Your task to perform on an android device: turn on sleep mode Image 0: 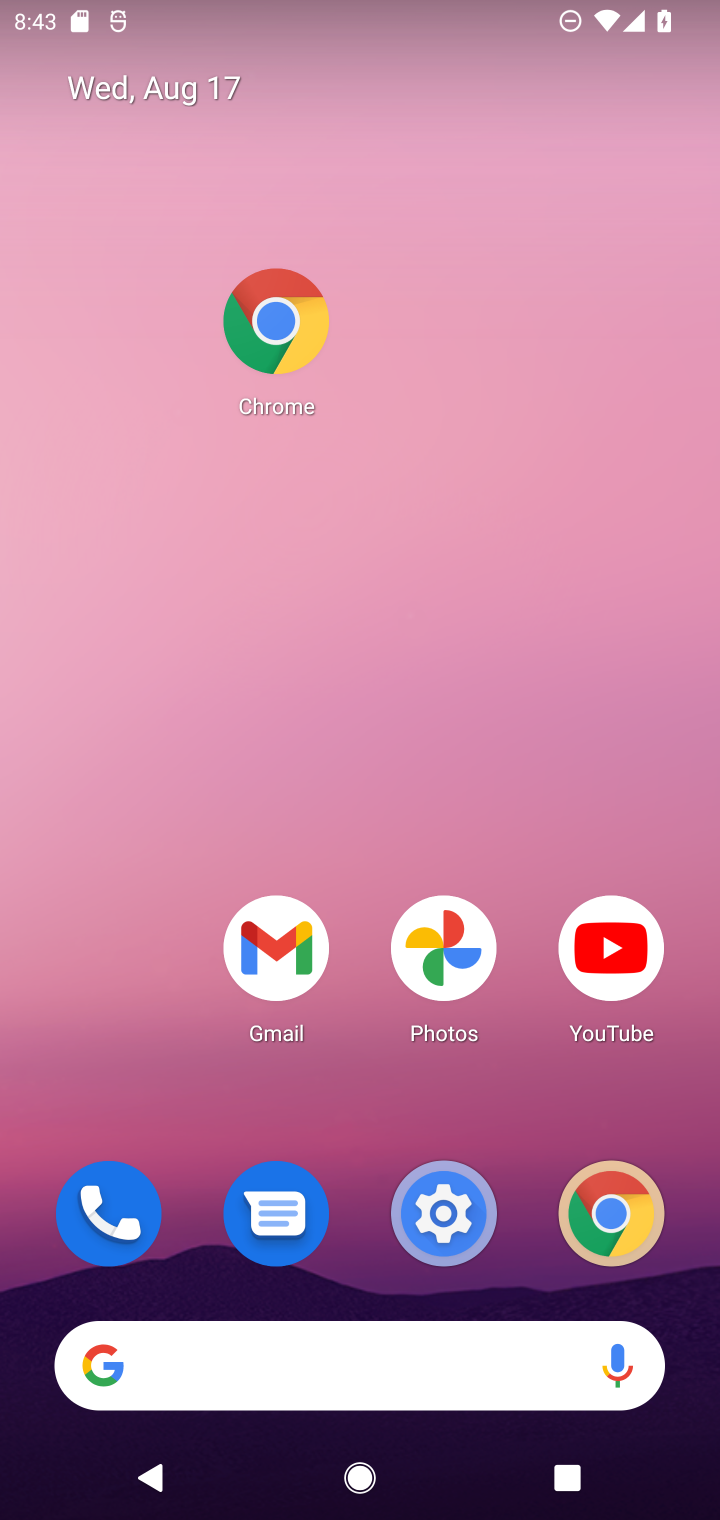
Step 0: click (461, 1279)
Your task to perform on an android device: turn on sleep mode Image 1: 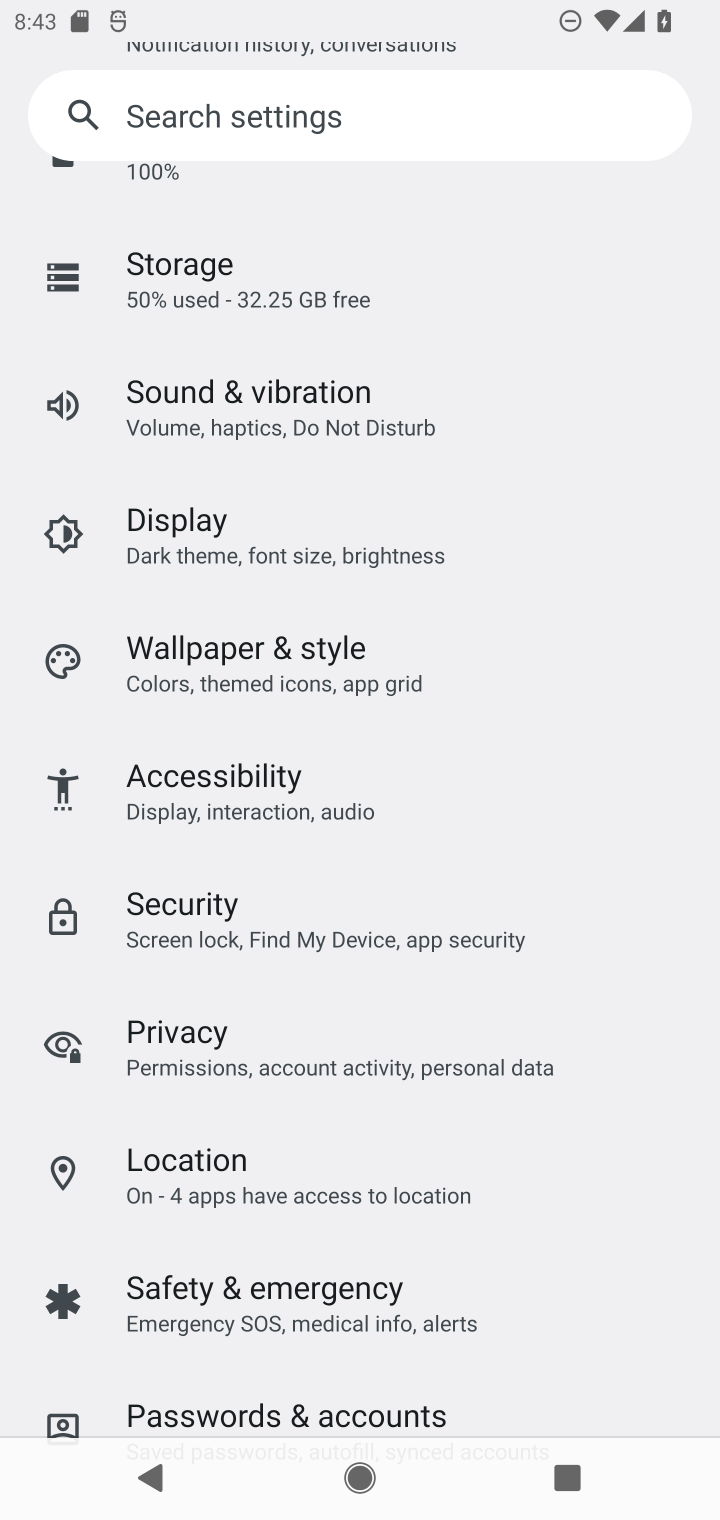
Step 1: click (444, 1257)
Your task to perform on an android device: turn on sleep mode Image 2: 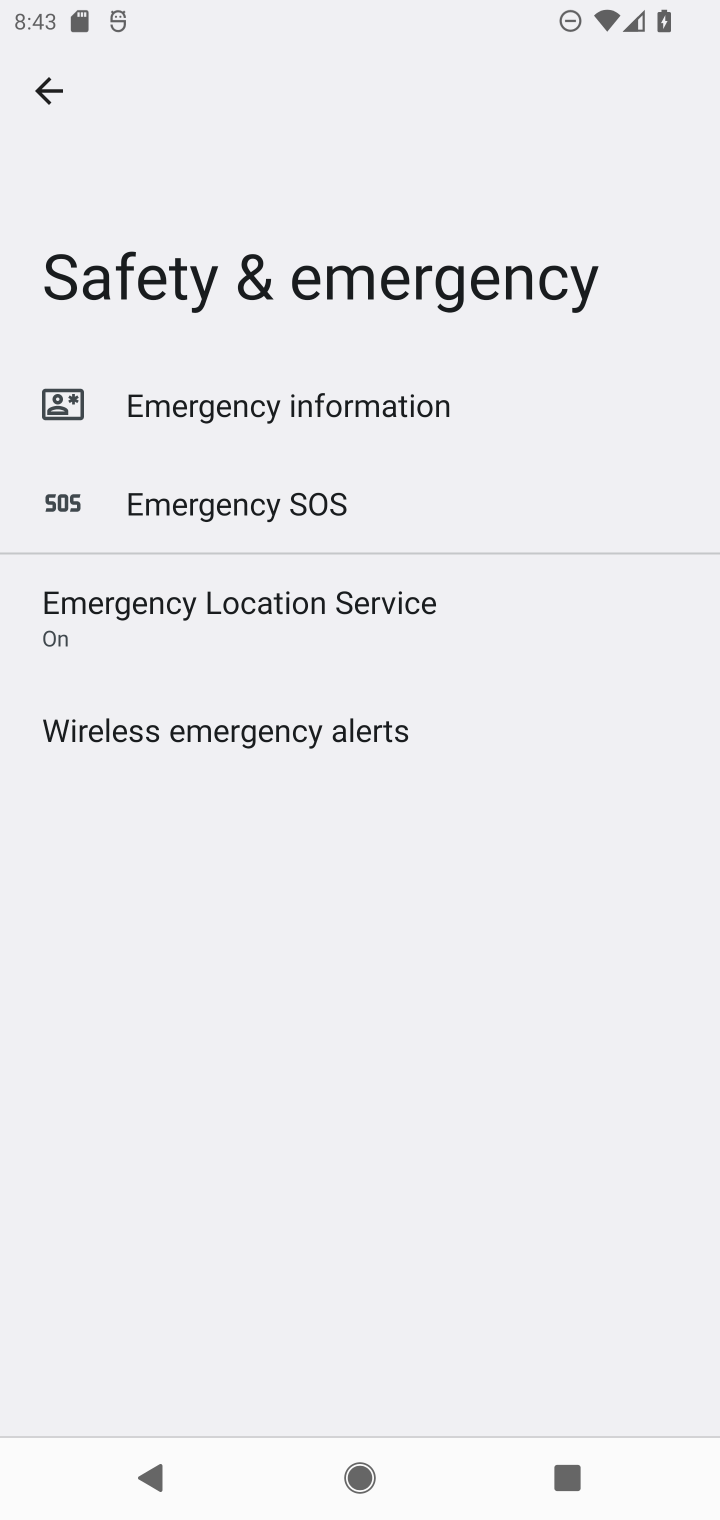
Step 2: click (303, 552)
Your task to perform on an android device: turn on sleep mode Image 3: 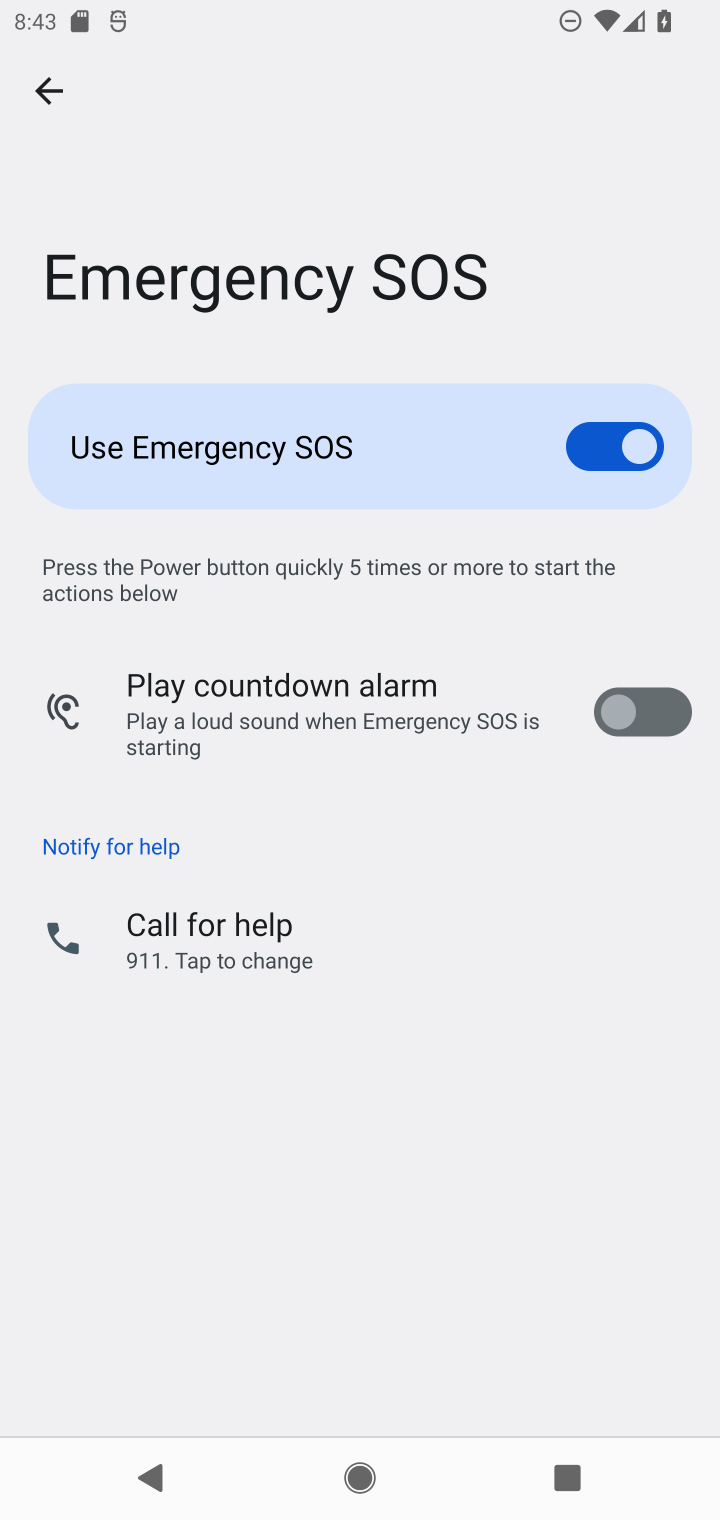
Step 3: click (37, 91)
Your task to perform on an android device: turn on sleep mode Image 4: 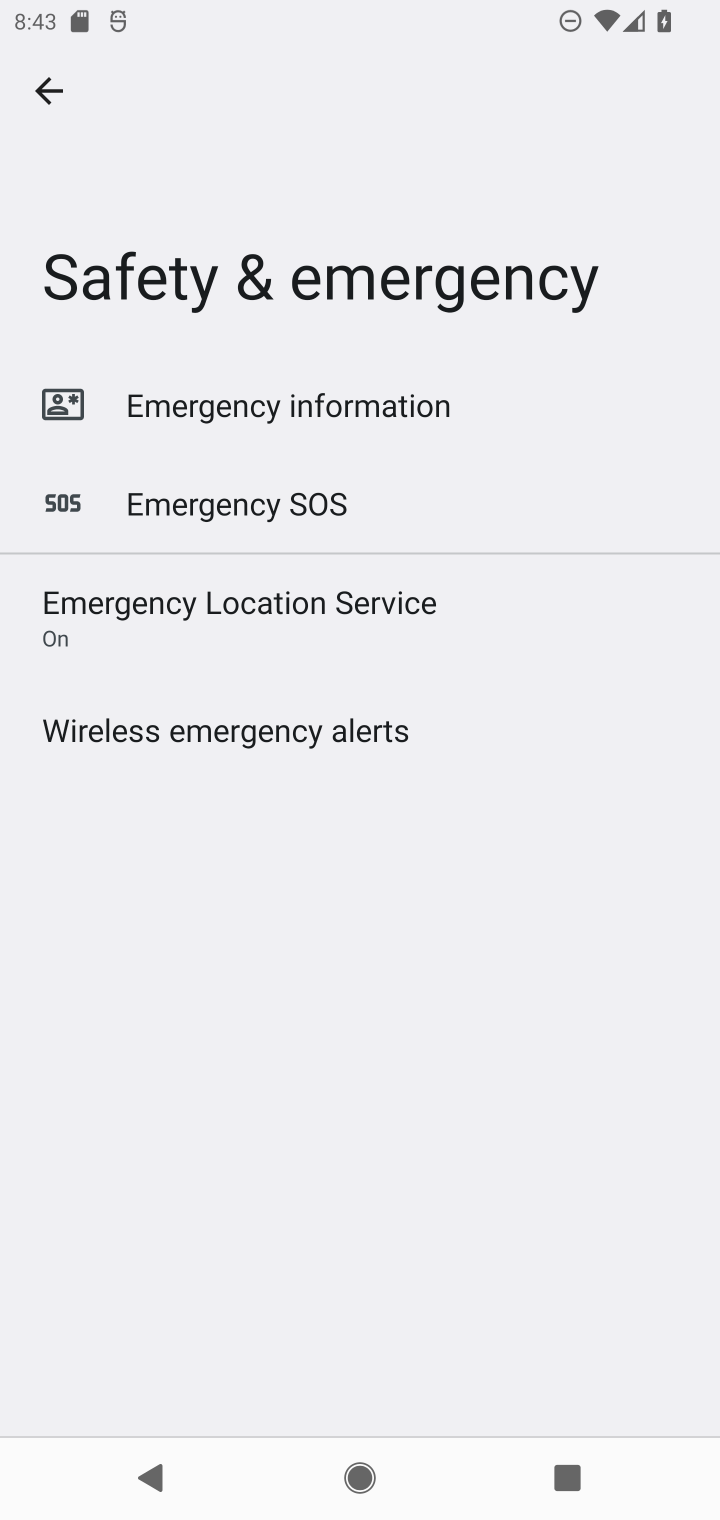
Step 4: click (37, 91)
Your task to perform on an android device: turn on sleep mode Image 5: 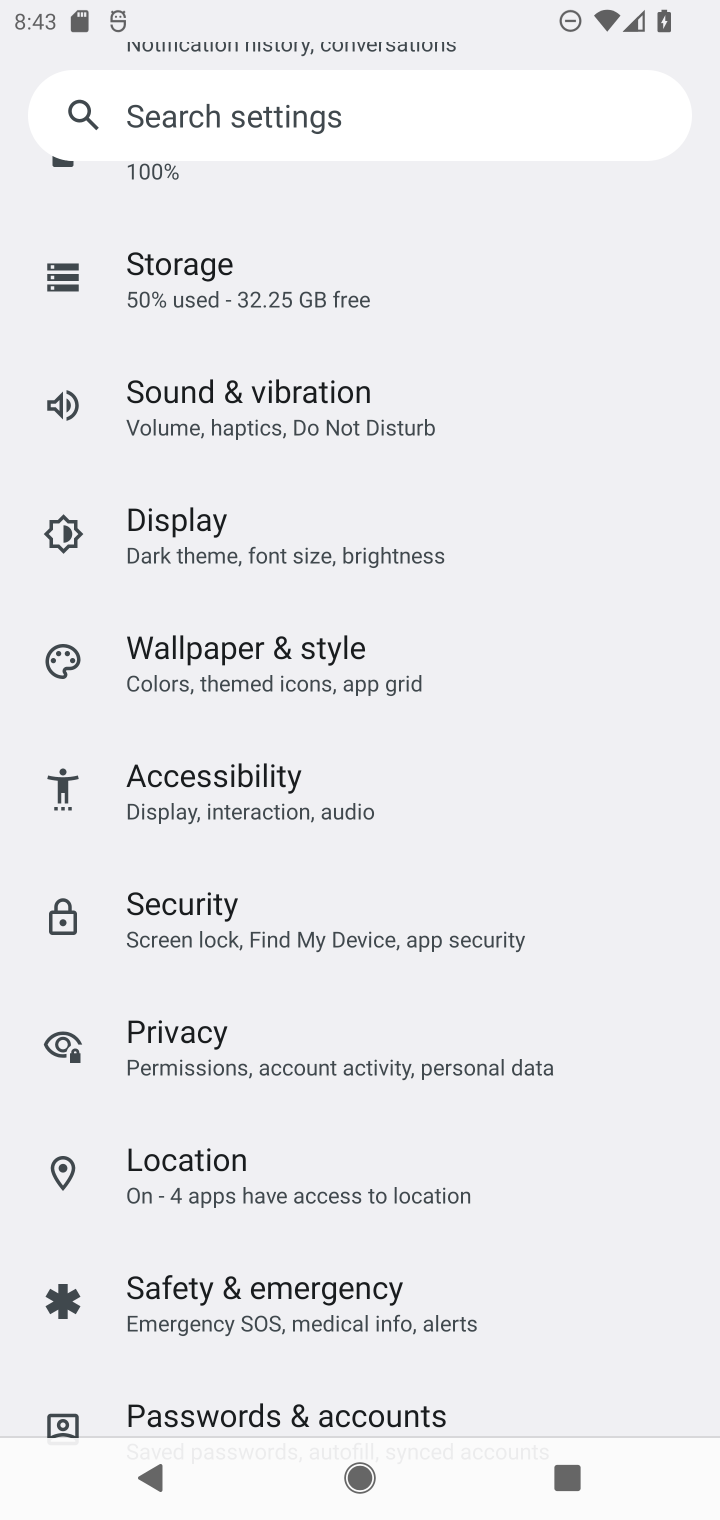
Step 5: click (339, 535)
Your task to perform on an android device: turn on sleep mode Image 6: 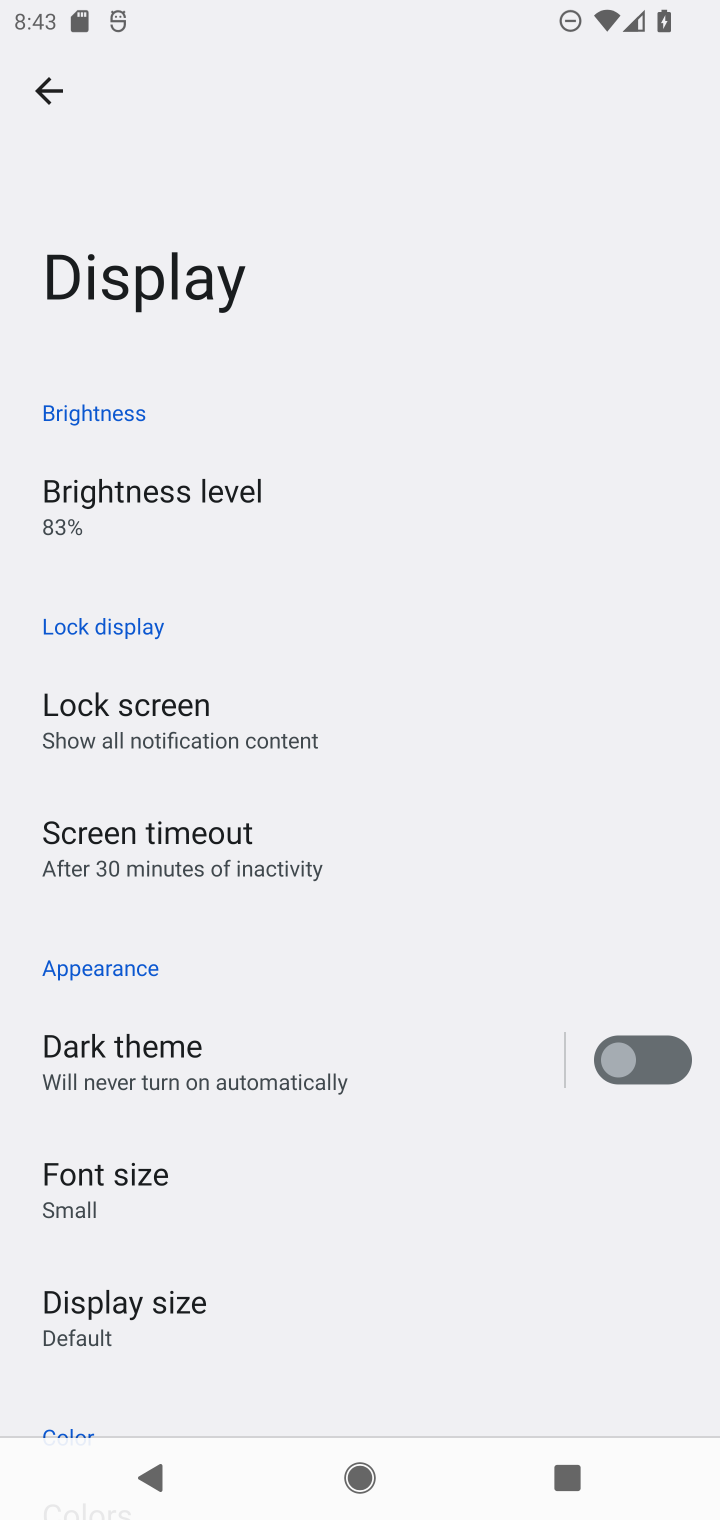
Step 6: drag from (290, 1092) to (270, 688)
Your task to perform on an android device: turn on sleep mode Image 7: 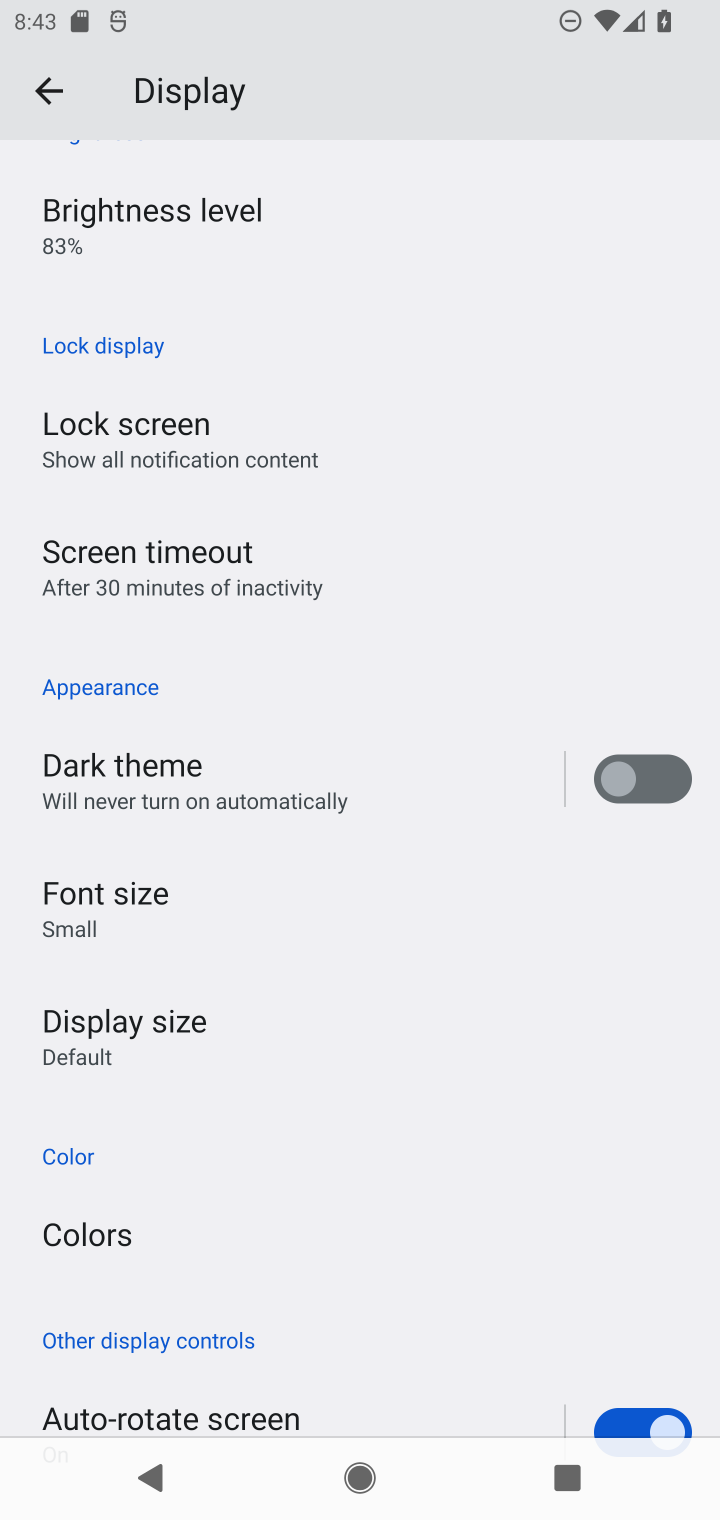
Step 7: click (591, 789)
Your task to perform on an android device: turn on sleep mode Image 8: 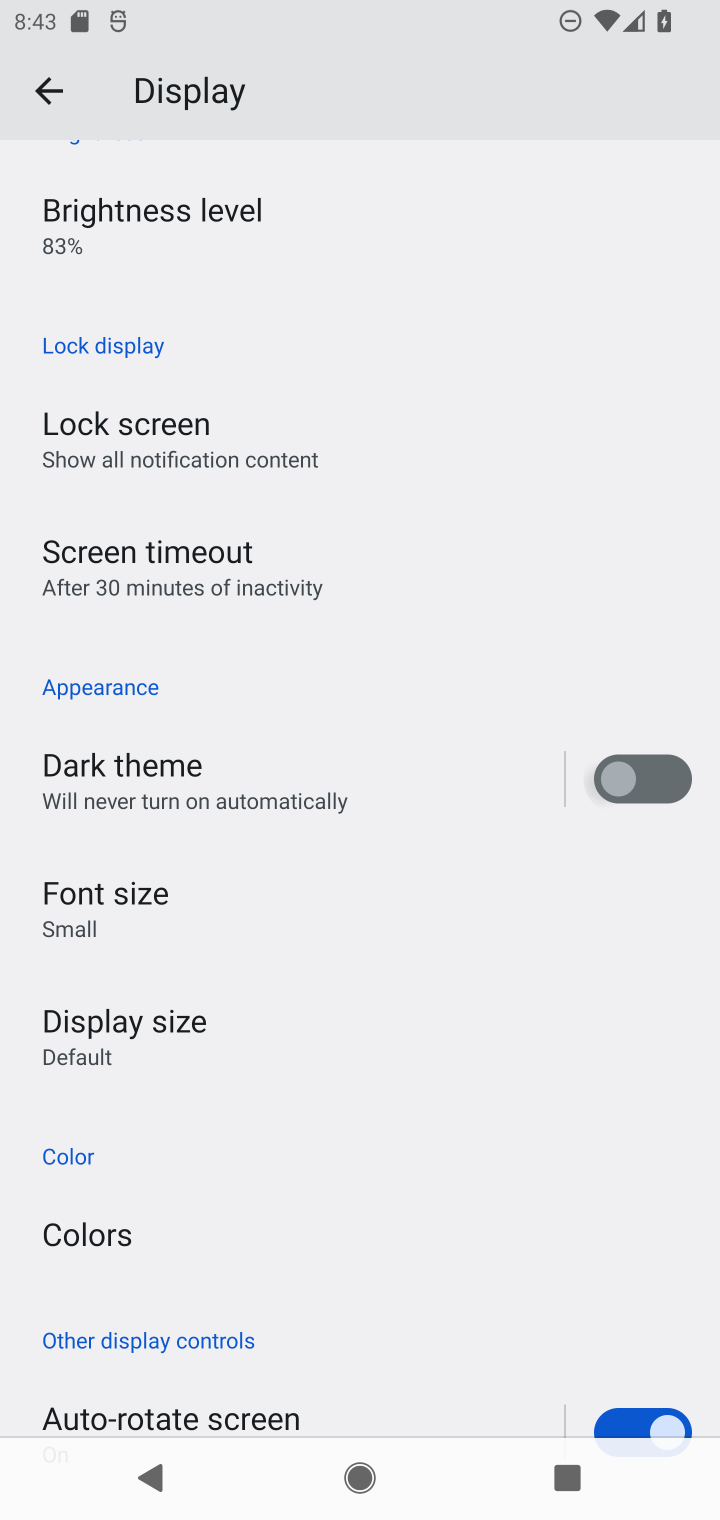
Step 8: task complete